Your task to perform on an android device: move a message to another label in the gmail app Image 0: 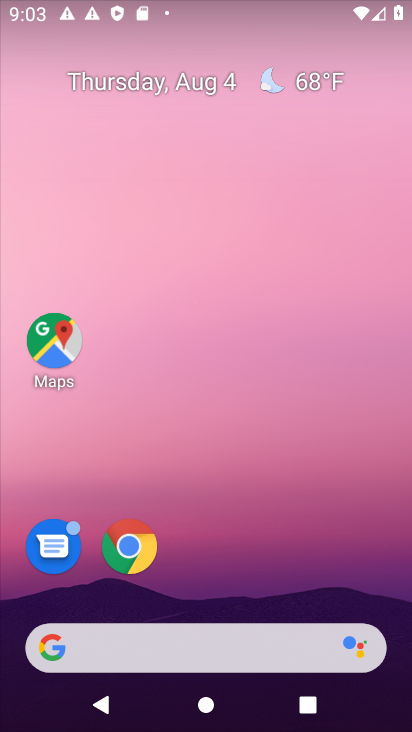
Step 0: press home button
Your task to perform on an android device: move a message to another label in the gmail app Image 1: 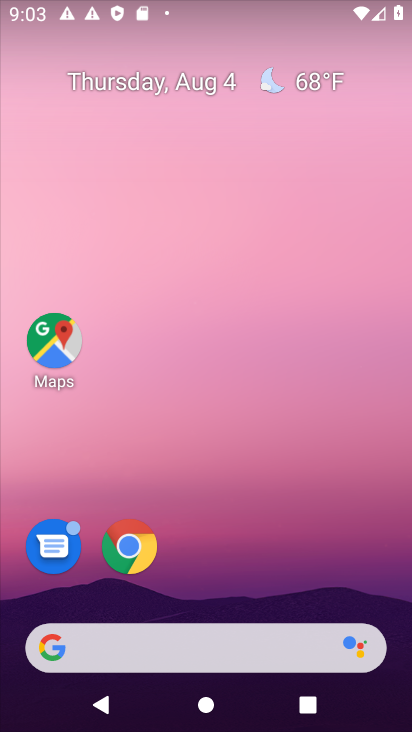
Step 1: drag from (211, 611) to (238, 32)
Your task to perform on an android device: move a message to another label in the gmail app Image 2: 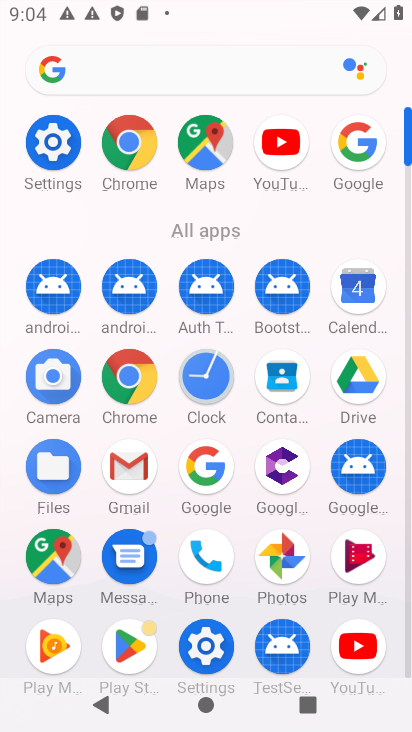
Step 2: click (133, 470)
Your task to perform on an android device: move a message to another label in the gmail app Image 3: 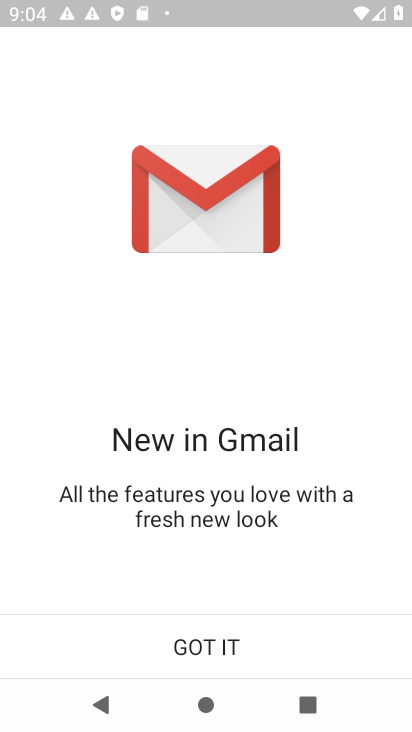
Step 3: click (222, 636)
Your task to perform on an android device: move a message to another label in the gmail app Image 4: 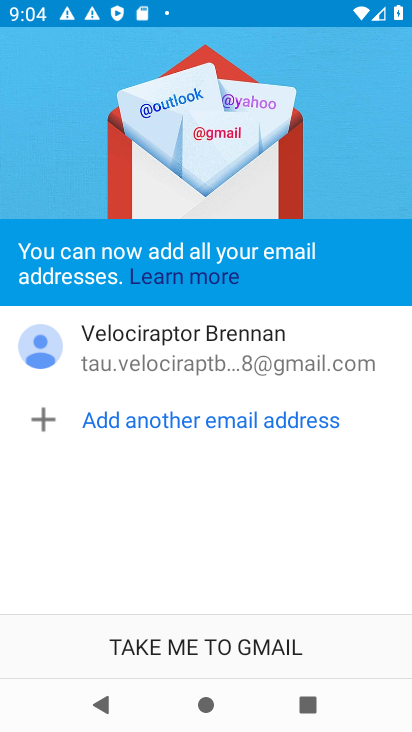
Step 4: click (179, 645)
Your task to perform on an android device: move a message to another label in the gmail app Image 5: 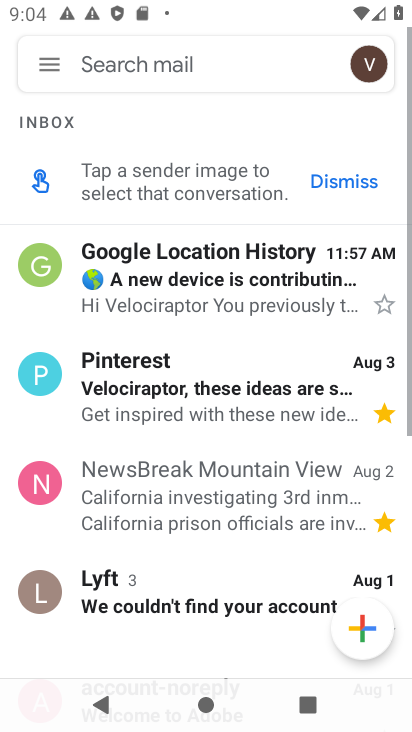
Step 5: click (222, 284)
Your task to perform on an android device: move a message to another label in the gmail app Image 6: 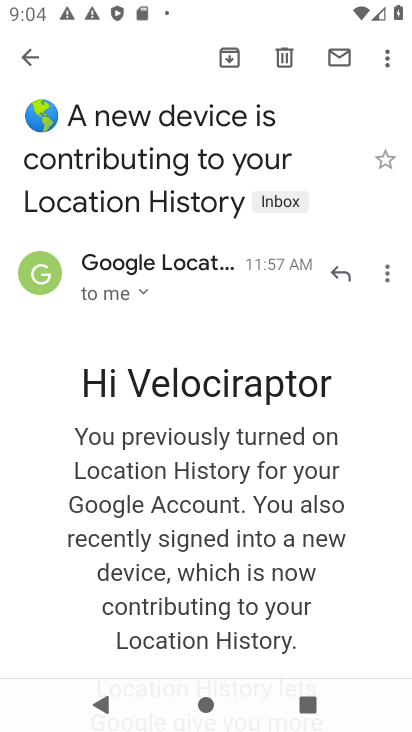
Step 6: click (389, 52)
Your task to perform on an android device: move a message to another label in the gmail app Image 7: 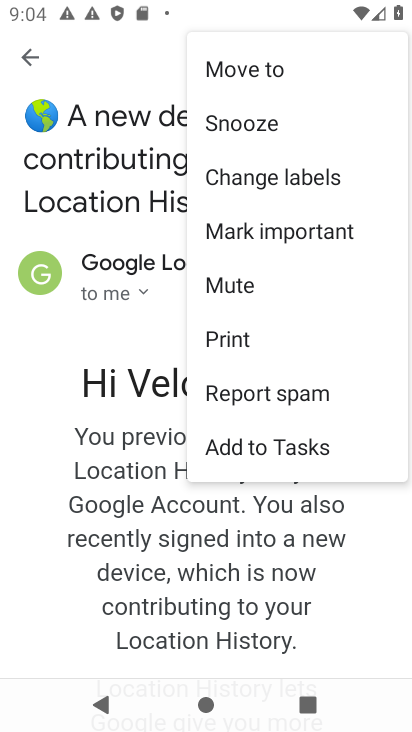
Step 7: click (277, 179)
Your task to perform on an android device: move a message to another label in the gmail app Image 8: 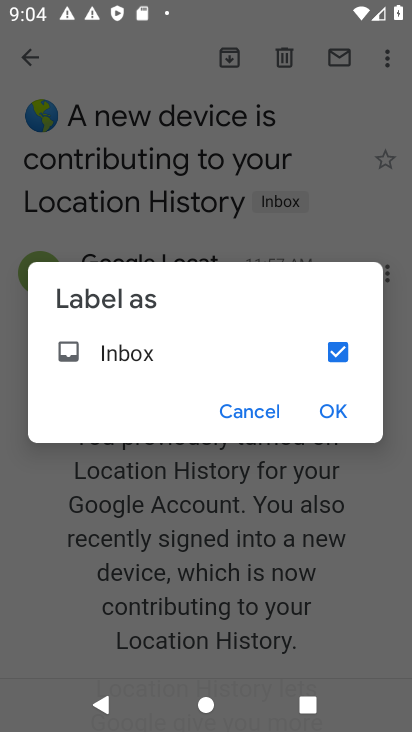
Step 8: click (340, 416)
Your task to perform on an android device: move a message to another label in the gmail app Image 9: 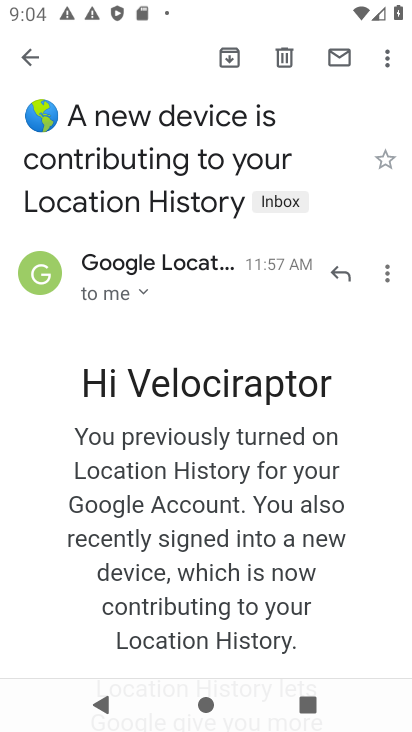
Step 9: task complete